Your task to perform on an android device: Go to calendar. Show me events next week Image 0: 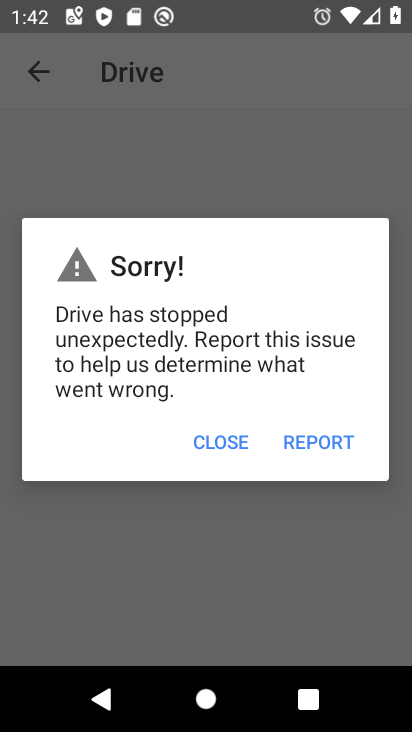
Step 0: press home button
Your task to perform on an android device: Go to calendar. Show me events next week Image 1: 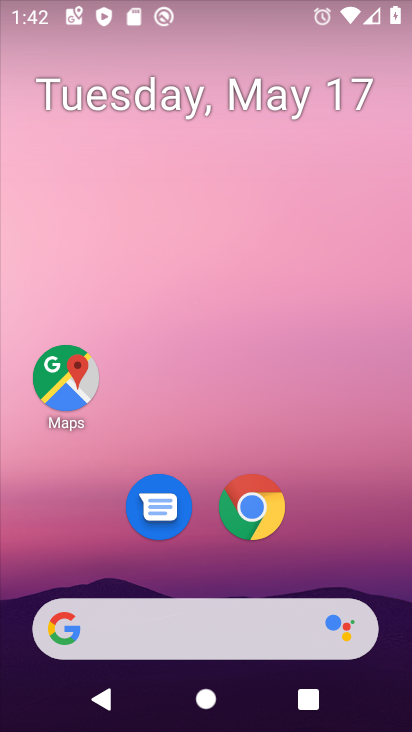
Step 1: drag from (363, 518) to (384, 209)
Your task to perform on an android device: Go to calendar. Show me events next week Image 2: 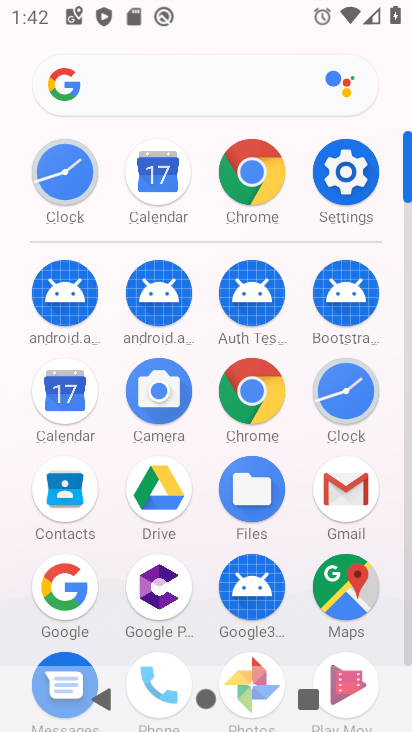
Step 2: click (54, 379)
Your task to perform on an android device: Go to calendar. Show me events next week Image 3: 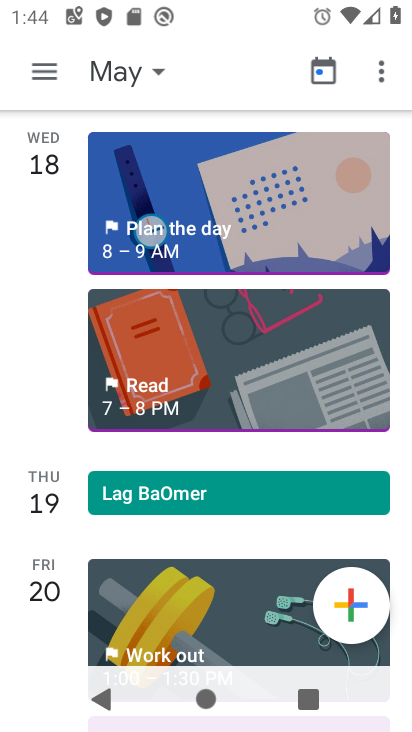
Step 3: click (42, 59)
Your task to perform on an android device: Go to calendar. Show me events next week Image 4: 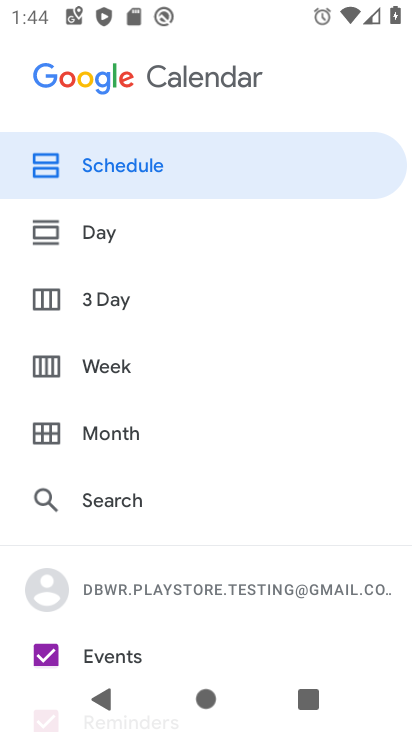
Step 4: click (124, 387)
Your task to perform on an android device: Go to calendar. Show me events next week Image 5: 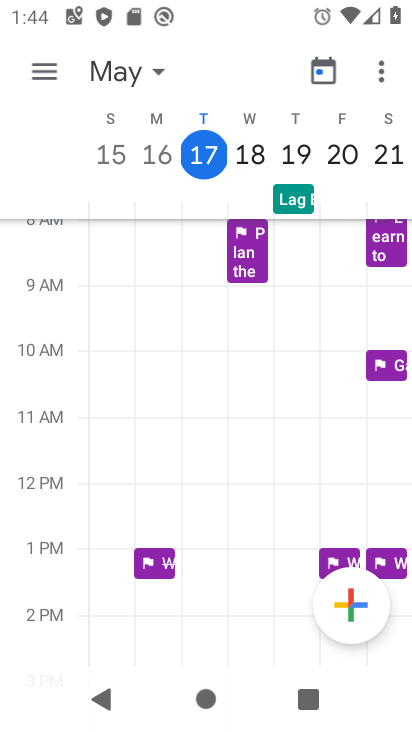
Step 5: task complete